Your task to perform on an android device: Open Yahoo.com Image 0: 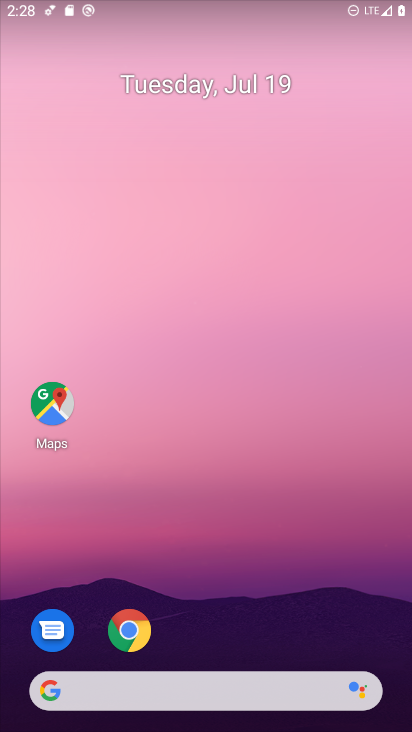
Step 0: click (132, 629)
Your task to perform on an android device: Open Yahoo.com Image 1: 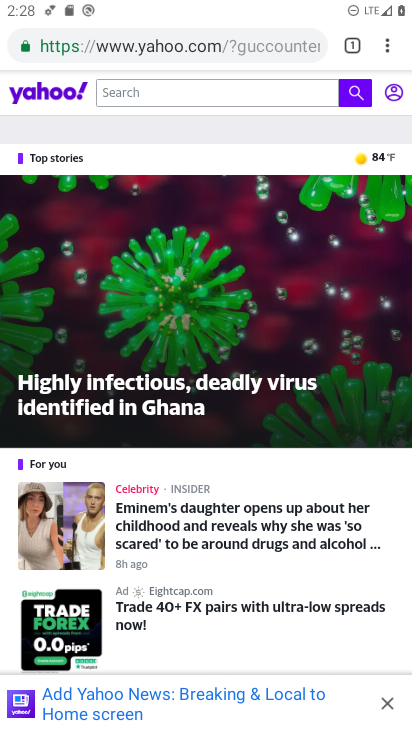
Step 1: task complete